Your task to perform on an android device: install app "Flipkart Online Shopping App" Image 0: 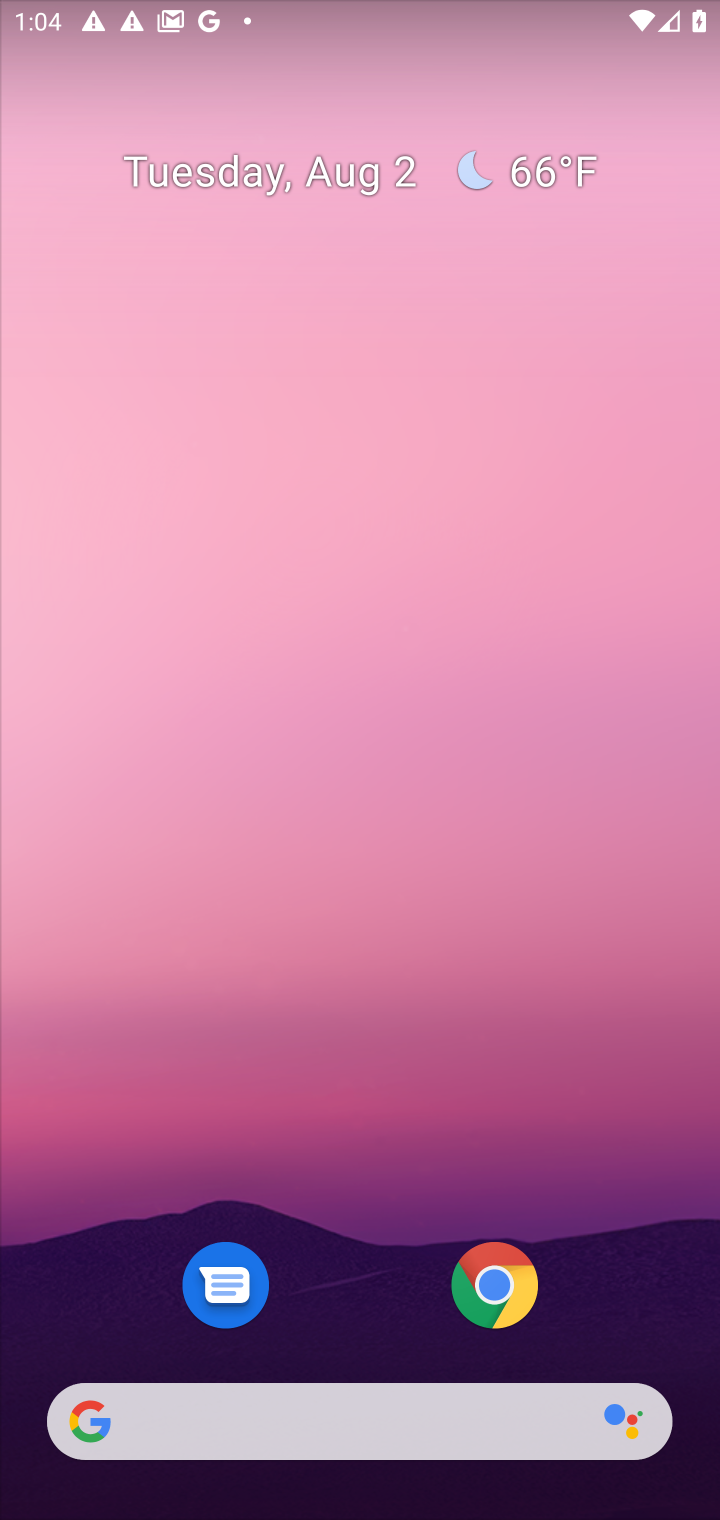
Step 0: drag from (366, 1327) to (525, 363)
Your task to perform on an android device: install app "Flipkart Online Shopping App" Image 1: 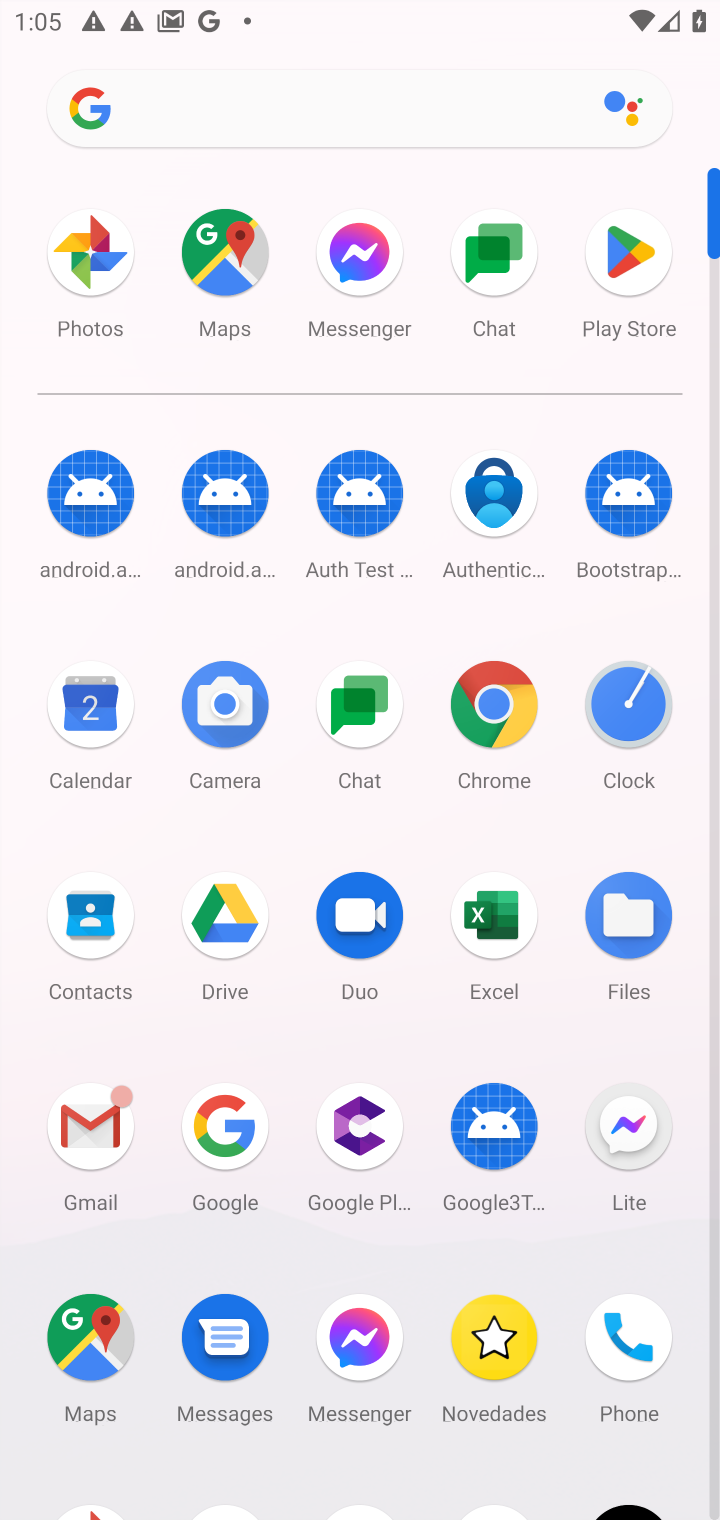
Step 1: drag from (425, 1240) to (566, 500)
Your task to perform on an android device: install app "Flipkart Online Shopping App" Image 2: 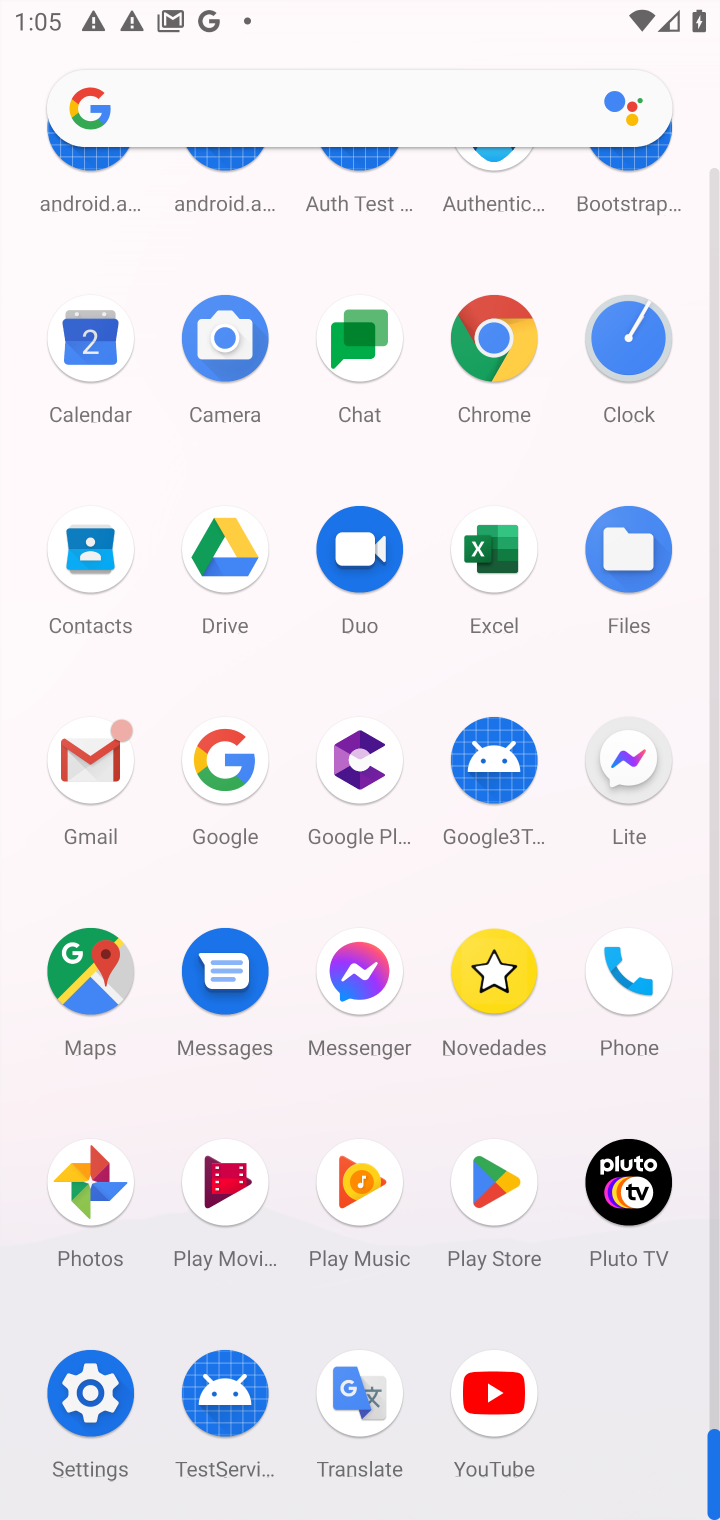
Step 2: click (506, 1190)
Your task to perform on an android device: install app "Flipkart Online Shopping App" Image 3: 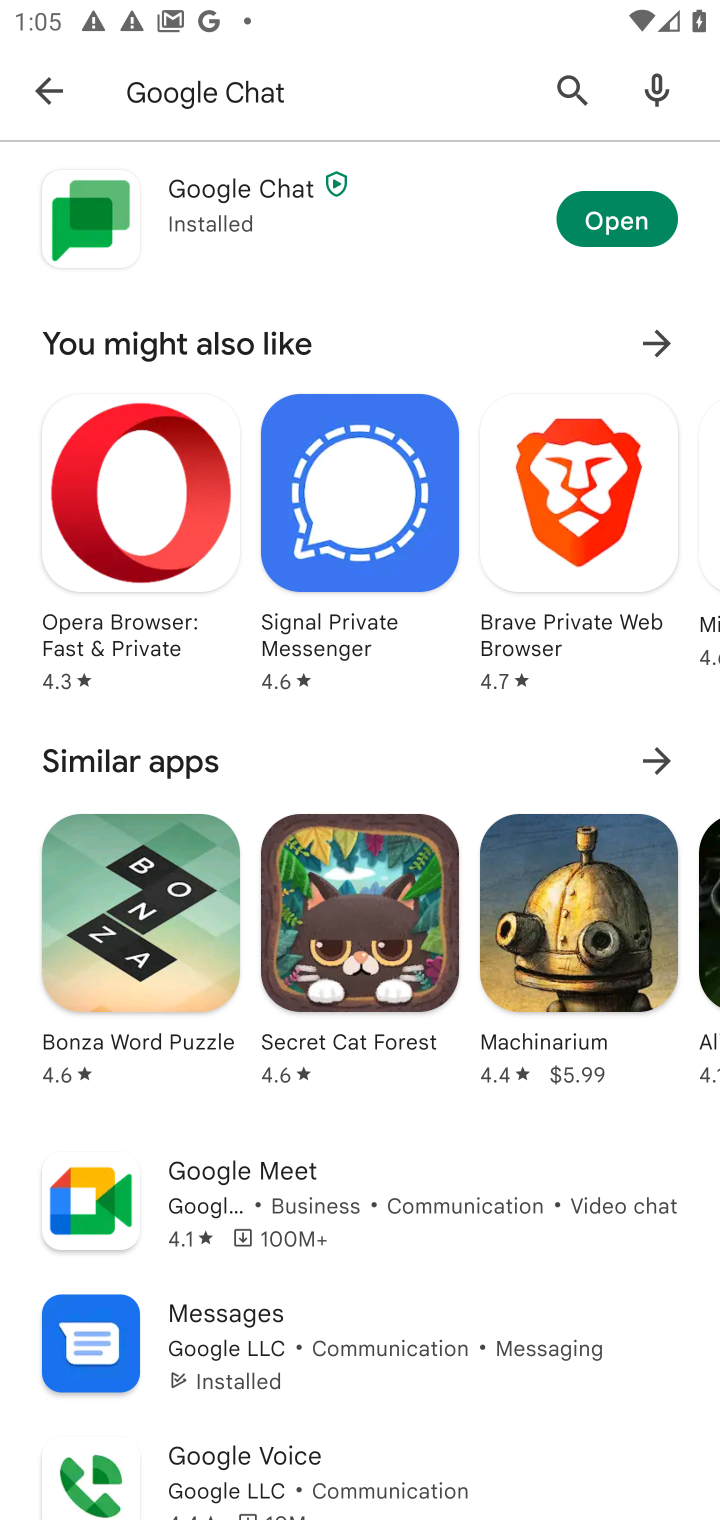
Step 3: click (413, 84)
Your task to perform on an android device: install app "Flipkart Online Shopping App" Image 4: 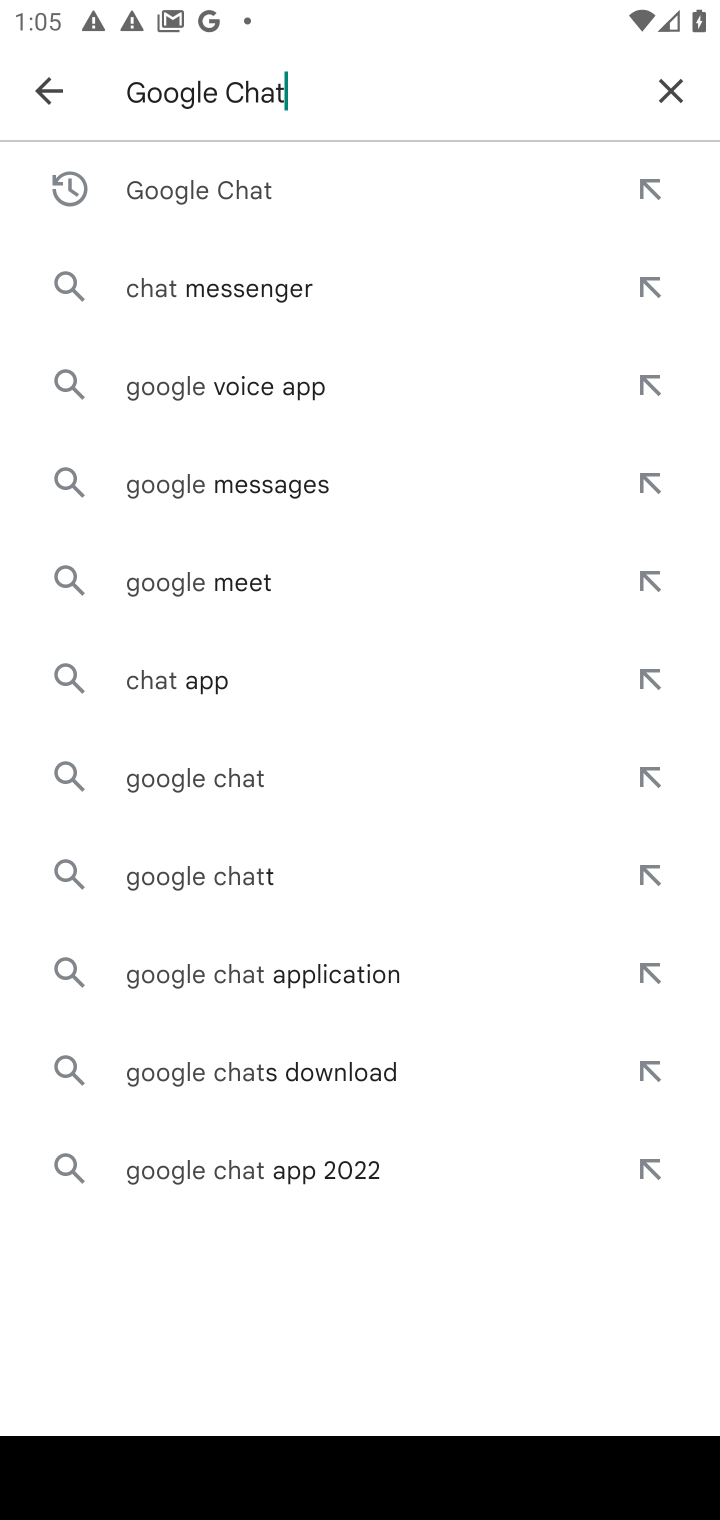
Step 4: click (674, 77)
Your task to perform on an android device: install app "Flipkart Online Shopping App" Image 5: 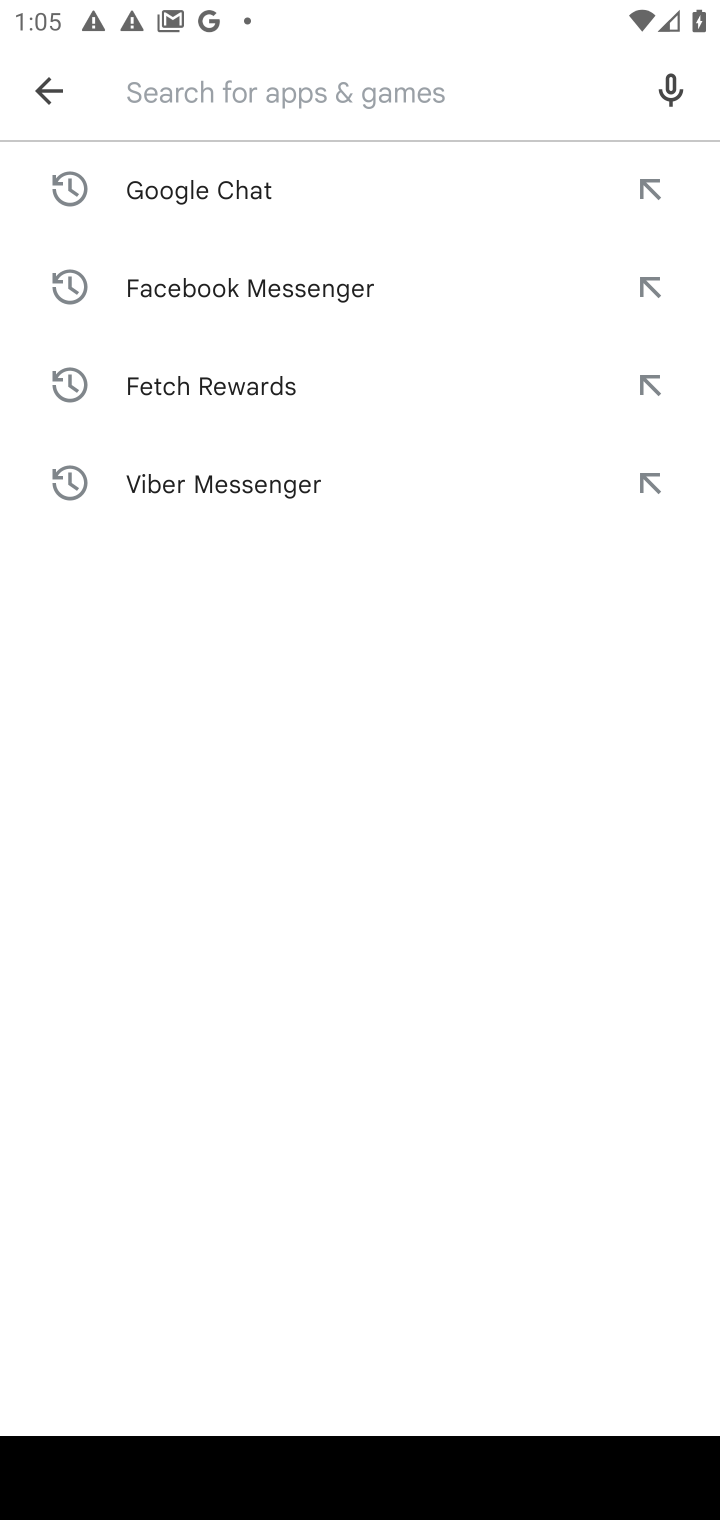
Step 5: type "Flipkart Online Shopping App"
Your task to perform on an android device: install app "Flipkart Online Shopping App" Image 6: 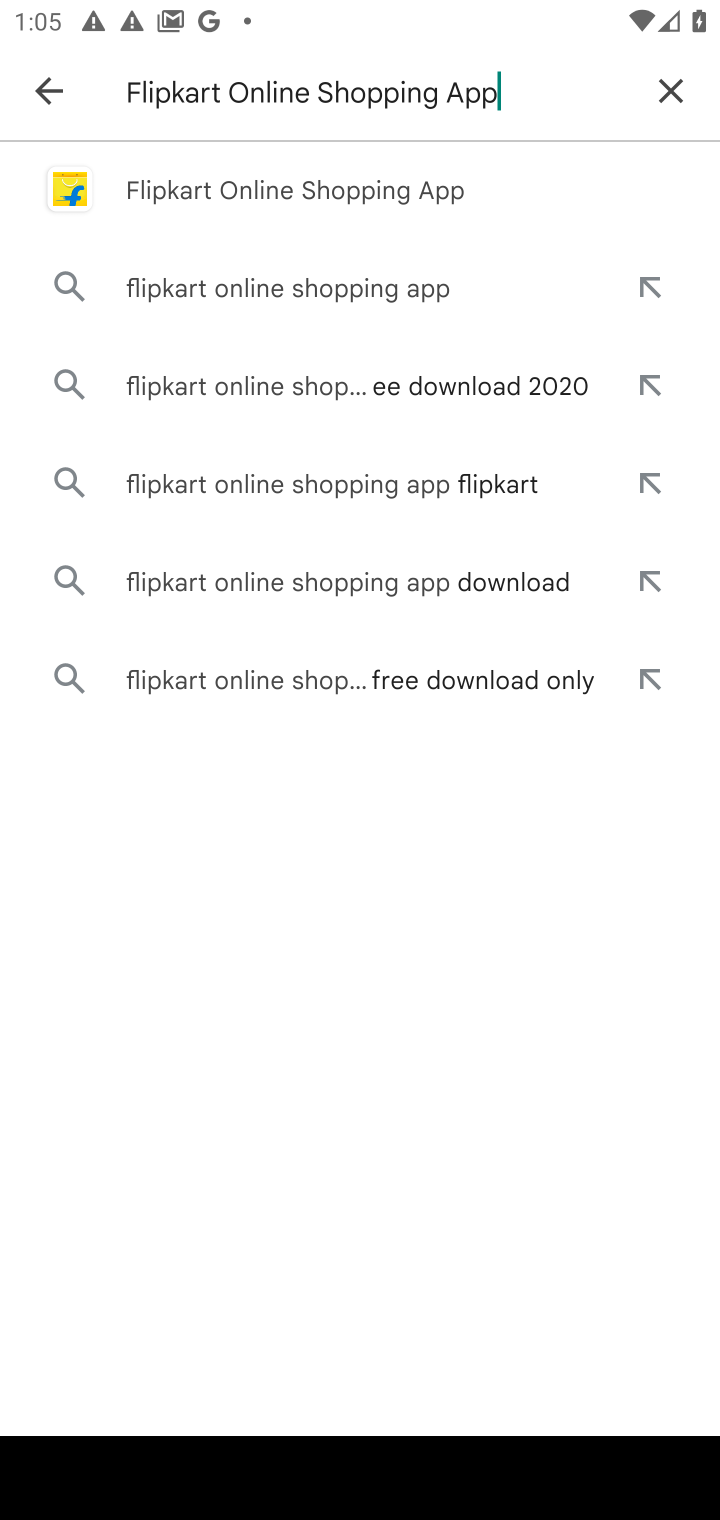
Step 6: click (438, 194)
Your task to perform on an android device: install app "Flipkart Online Shopping App" Image 7: 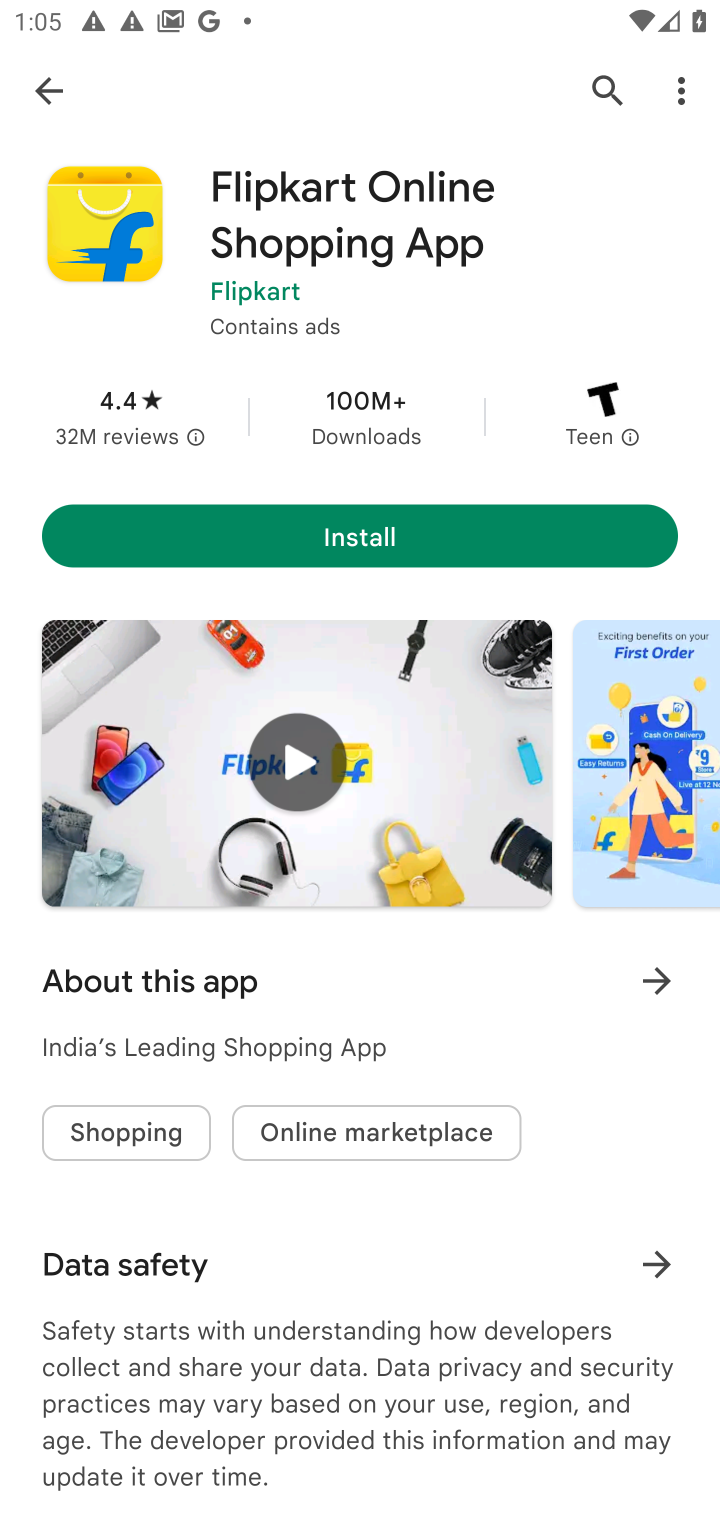
Step 7: click (485, 544)
Your task to perform on an android device: install app "Flipkart Online Shopping App" Image 8: 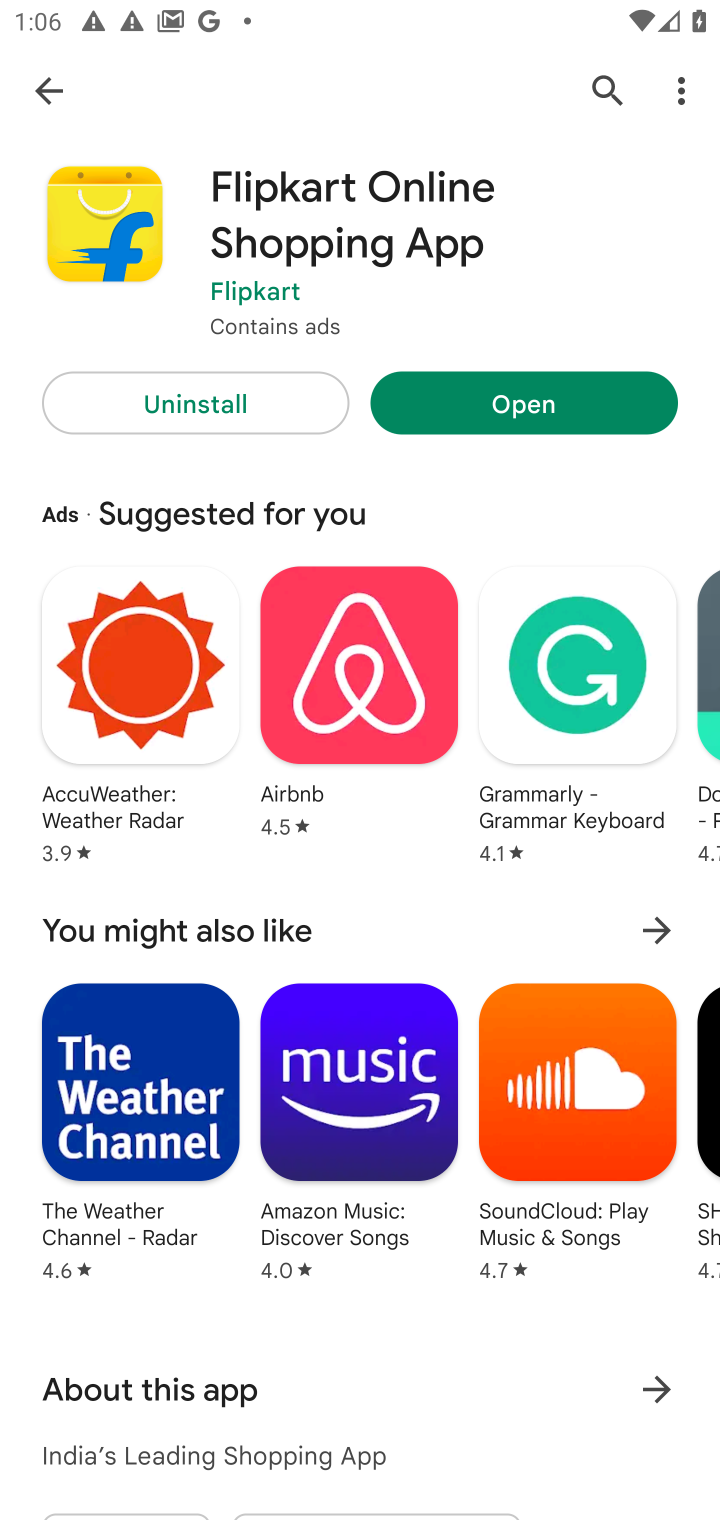
Step 8: task complete